Your task to perform on an android device: install app "DuckDuckGo Privacy Browser" Image 0: 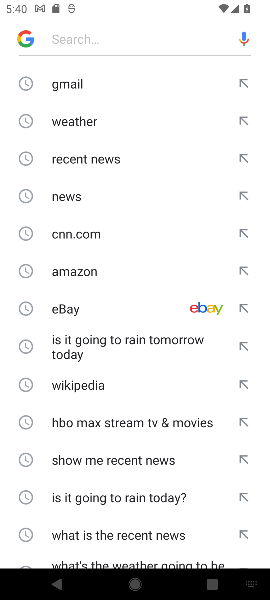
Step 0: press home button
Your task to perform on an android device: install app "DuckDuckGo Privacy Browser" Image 1: 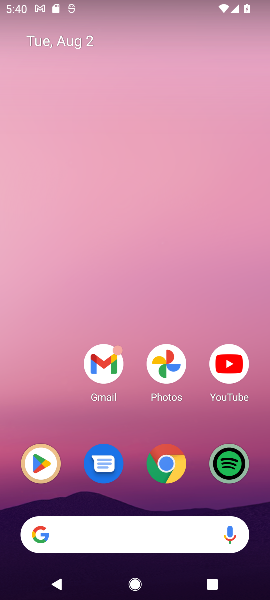
Step 1: click (43, 469)
Your task to perform on an android device: install app "DuckDuckGo Privacy Browser" Image 2: 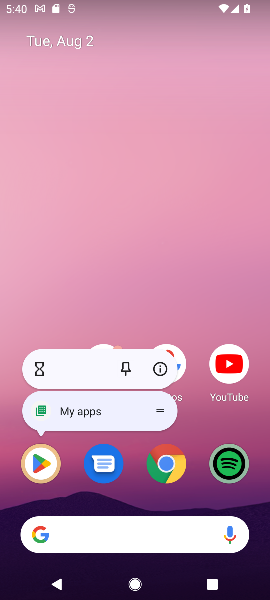
Step 2: click (39, 464)
Your task to perform on an android device: install app "DuckDuckGo Privacy Browser" Image 3: 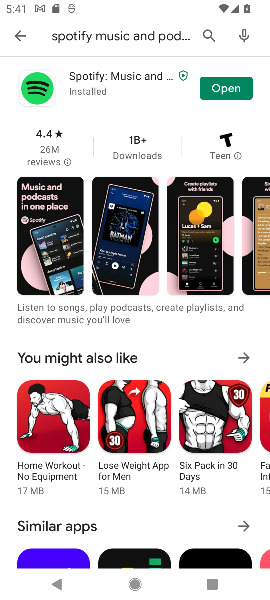
Step 3: click (204, 32)
Your task to perform on an android device: install app "DuckDuckGo Privacy Browser" Image 4: 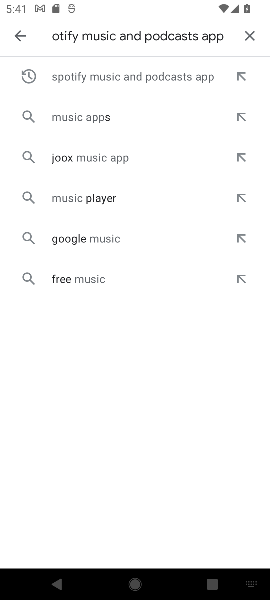
Step 4: click (248, 29)
Your task to perform on an android device: install app "DuckDuckGo Privacy Browser" Image 5: 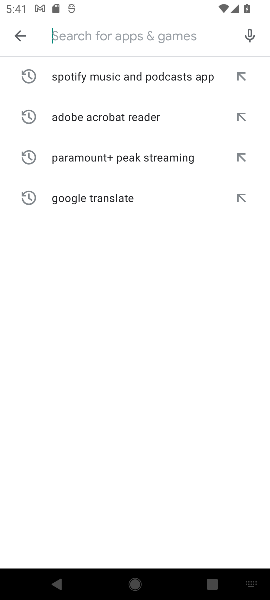
Step 5: type "DuckDuckGo Privacy Browser"
Your task to perform on an android device: install app "DuckDuckGo Privacy Browser" Image 6: 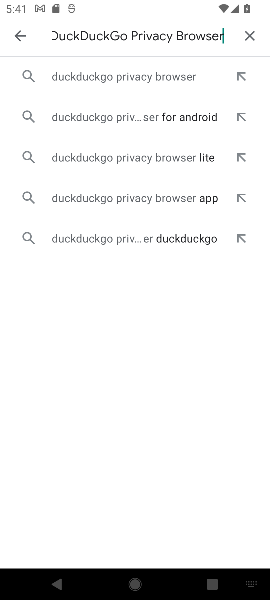
Step 6: click (151, 74)
Your task to perform on an android device: install app "DuckDuckGo Privacy Browser" Image 7: 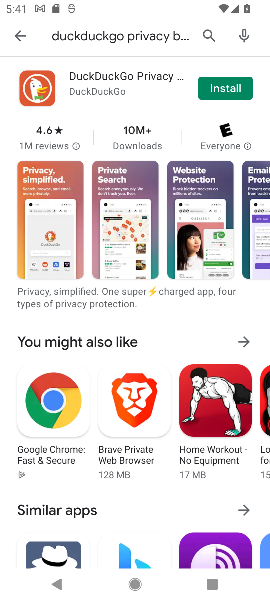
Step 7: click (227, 89)
Your task to perform on an android device: install app "DuckDuckGo Privacy Browser" Image 8: 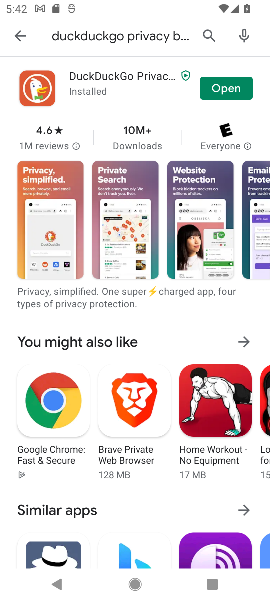
Step 8: task complete